Your task to perform on an android device: Show me recent news Image 0: 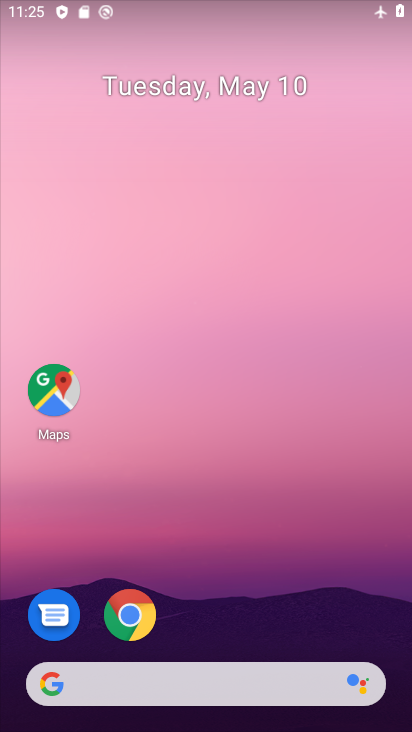
Step 0: drag from (207, 515) to (176, 2)
Your task to perform on an android device: Show me recent news Image 1: 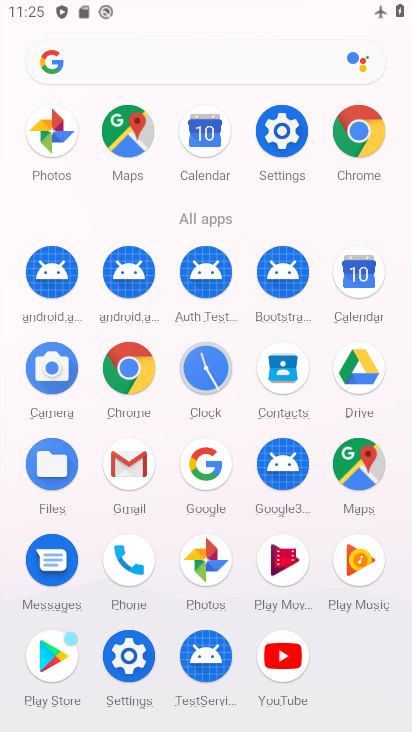
Step 1: drag from (7, 529) to (5, 233)
Your task to perform on an android device: Show me recent news Image 2: 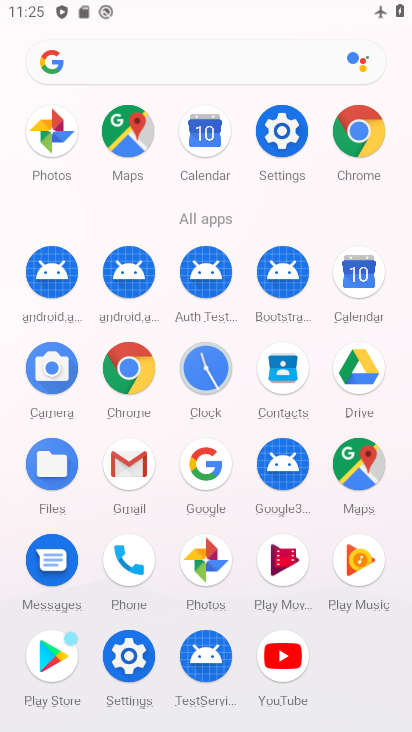
Step 2: drag from (9, 607) to (12, 293)
Your task to perform on an android device: Show me recent news Image 3: 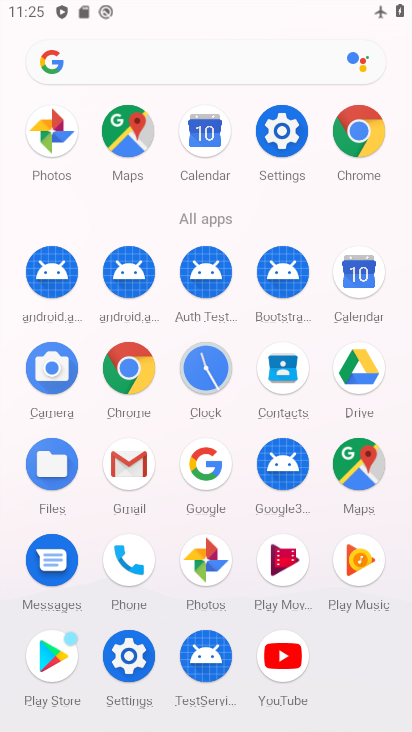
Step 3: click (355, 130)
Your task to perform on an android device: Show me recent news Image 4: 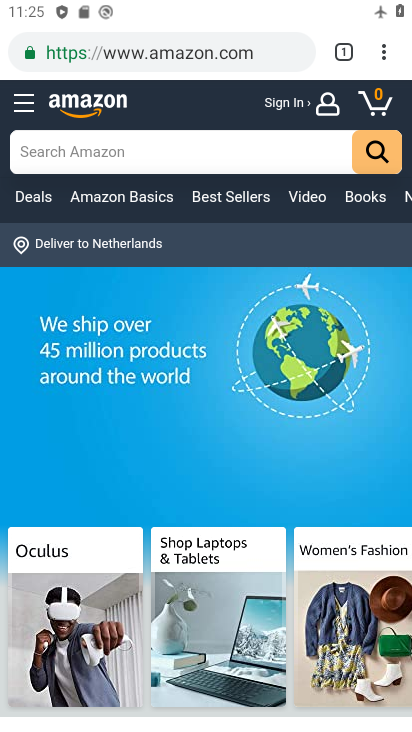
Step 4: drag from (379, 41) to (236, 574)
Your task to perform on an android device: Show me recent news Image 5: 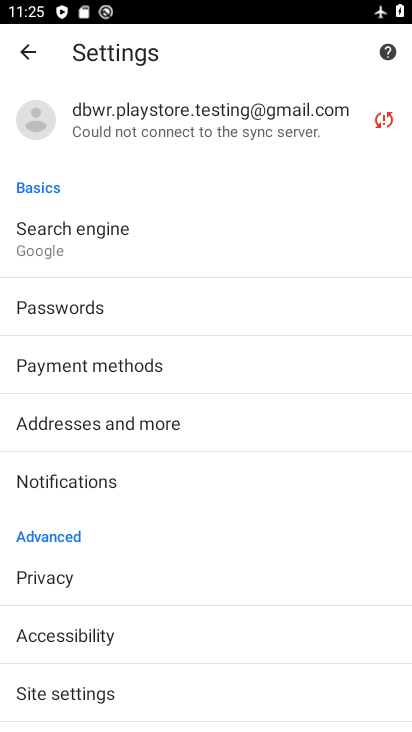
Step 5: click (23, 64)
Your task to perform on an android device: Show me recent news Image 6: 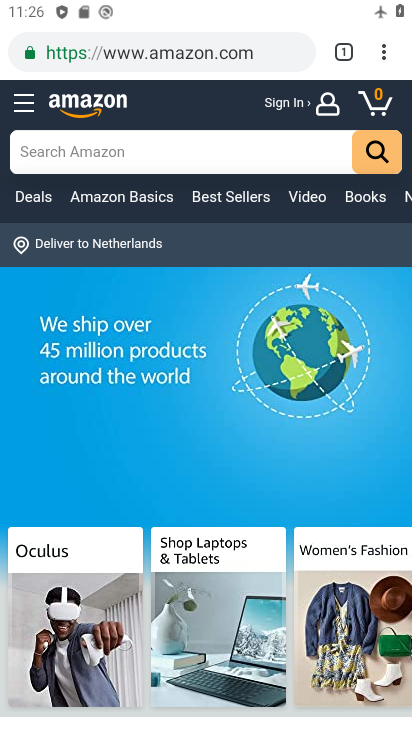
Step 6: click (142, 50)
Your task to perform on an android device: Show me recent news Image 7: 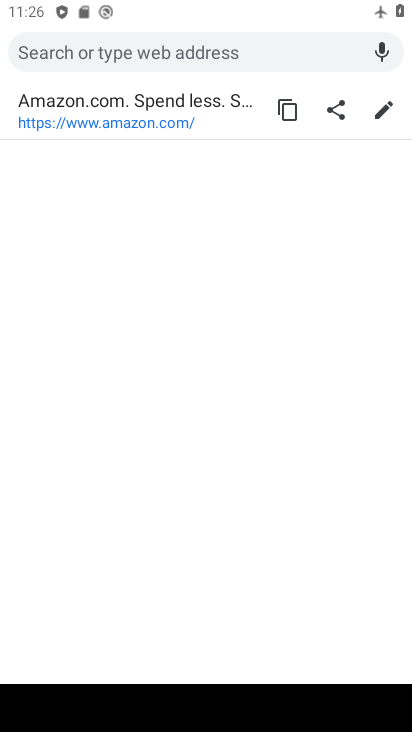
Step 7: type "Show me recent news"
Your task to perform on an android device: Show me recent news Image 8: 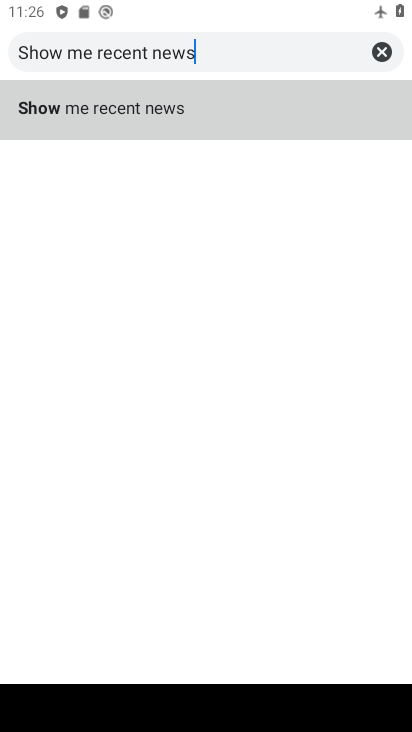
Step 8: type ""
Your task to perform on an android device: Show me recent news Image 9: 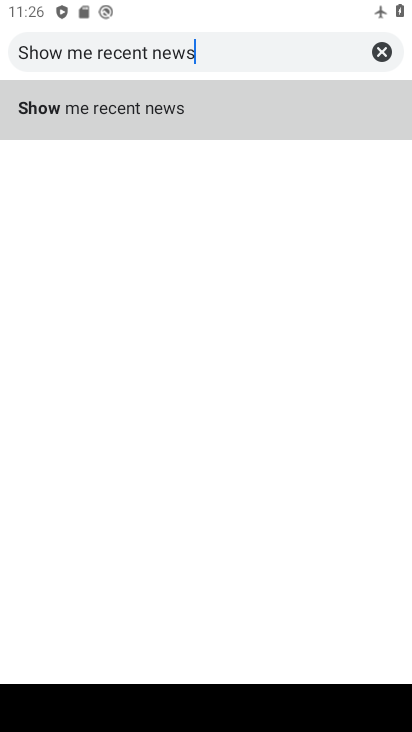
Step 9: click (169, 117)
Your task to perform on an android device: Show me recent news Image 10: 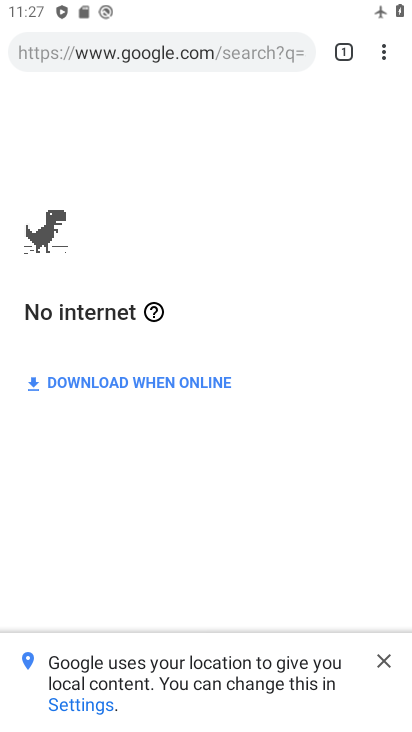
Step 10: task complete